Your task to perform on an android device: delete a single message in the gmail app Image 0: 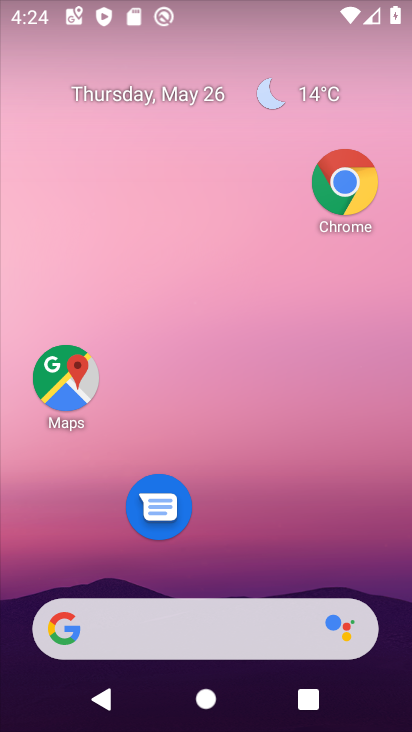
Step 0: drag from (277, 555) to (300, 164)
Your task to perform on an android device: delete a single message in the gmail app Image 1: 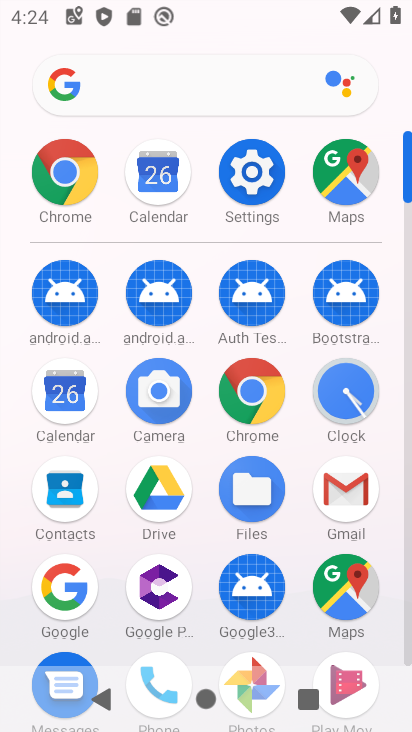
Step 1: click (356, 485)
Your task to perform on an android device: delete a single message in the gmail app Image 2: 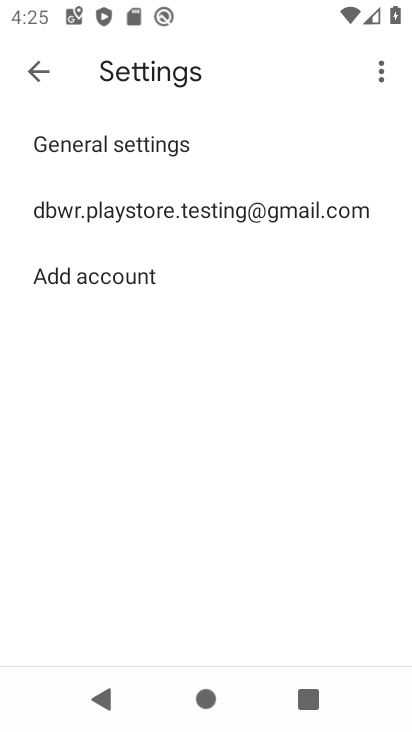
Step 2: click (38, 68)
Your task to perform on an android device: delete a single message in the gmail app Image 3: 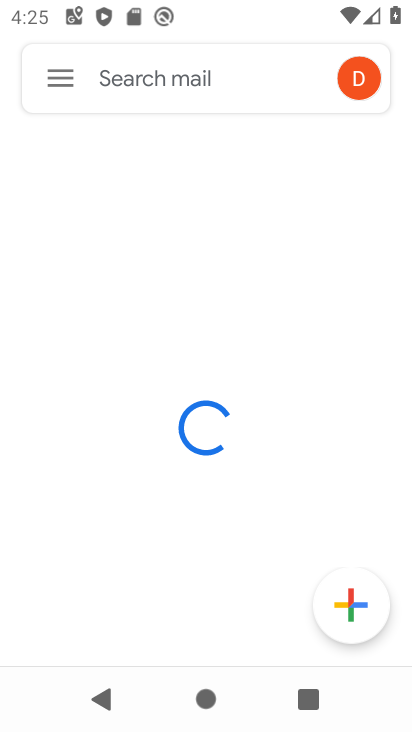
Step 3: click (50, 77)
Your task to perform on an android device: delete a single message in the gmail app Image 4: 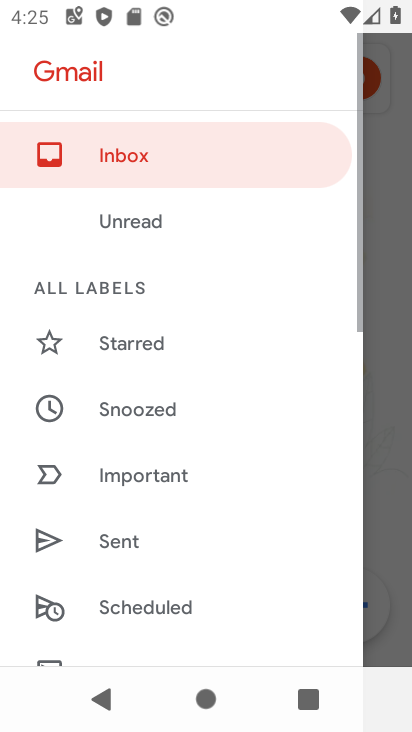
Step 4: click (100, 158)
Your task to perform on an android device: delete a single message in the gmail app Image 5: 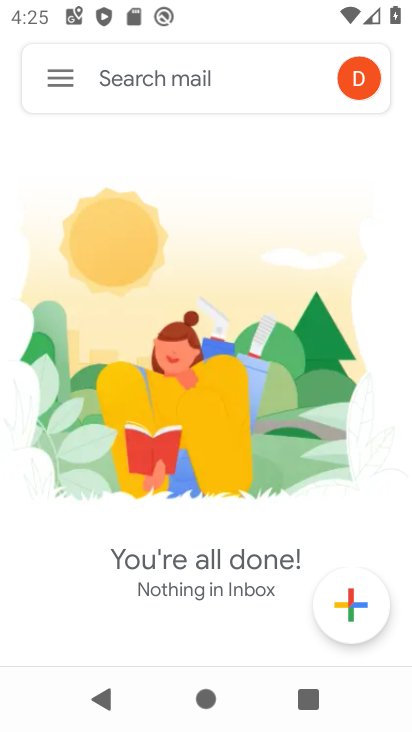
Step 5: task complete